Your task to perform on an android device: Go to Google Image 0: 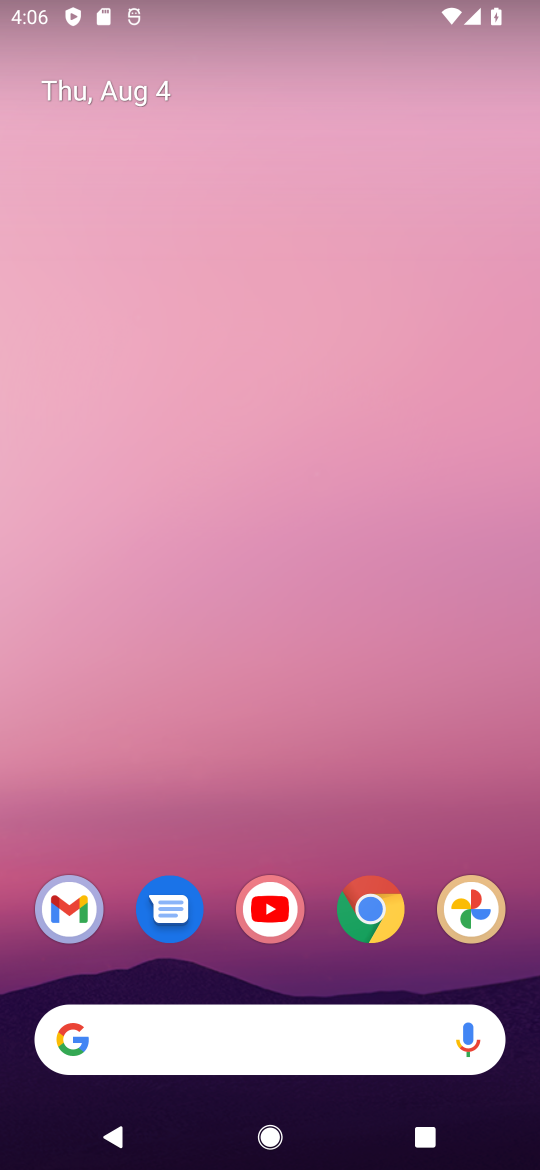
Step 0: press home button
Your task to perform on an android device: Go to Google Image 1: 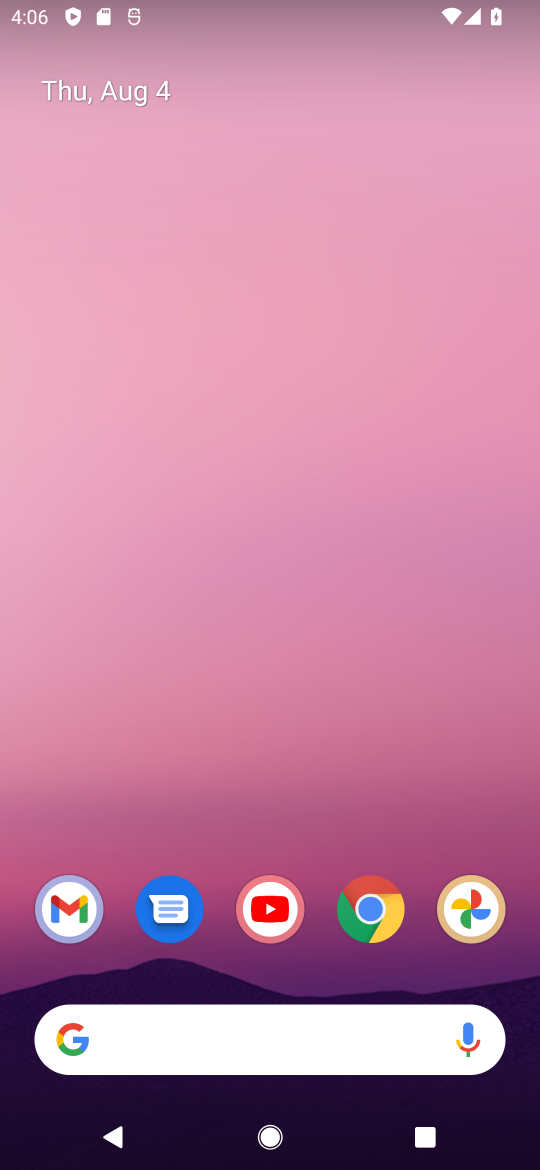
Step 1: drag from (249, 893) to (324, 28)
Your task to perform on an android device: Go to Google Image 2: 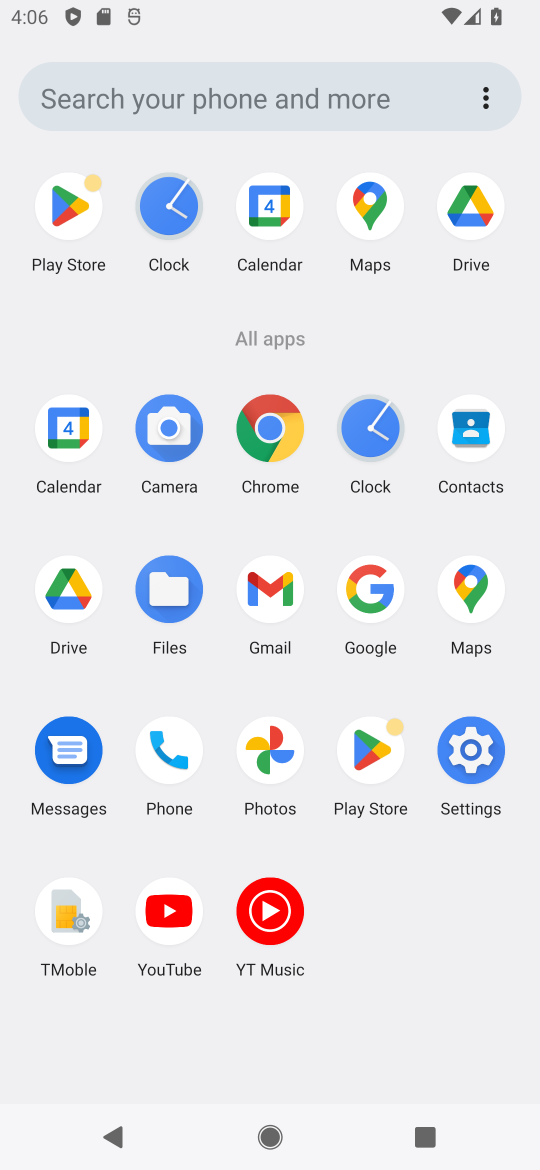
Step 2: click (372, 587)
Your task to perform on an android device: Go to Google Image 3: 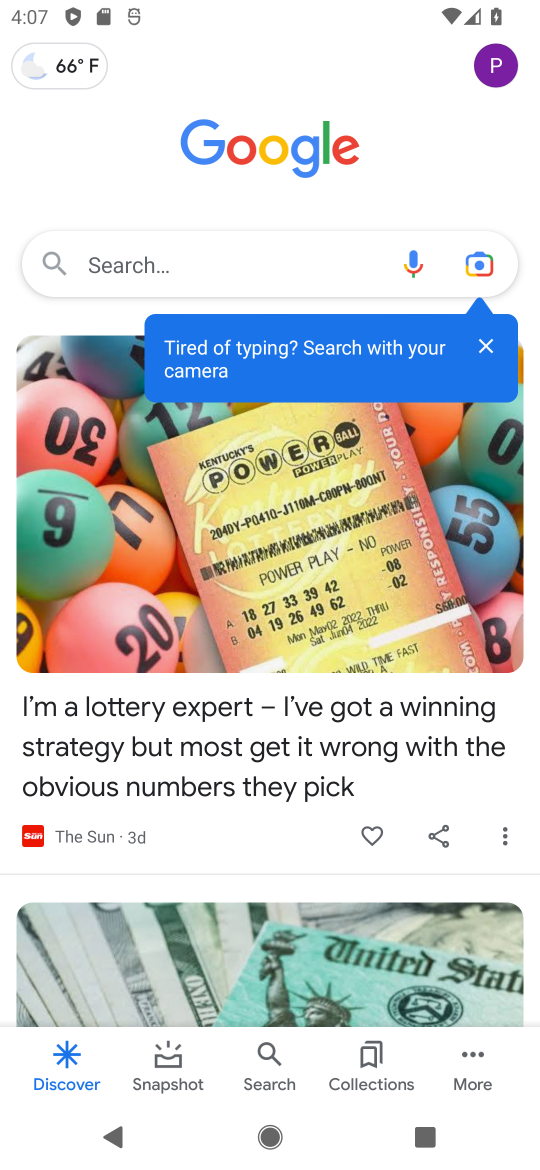
Step 3: task complete